Your task to perform on an android device: Search for Italian restaurants on Maps Image 0: 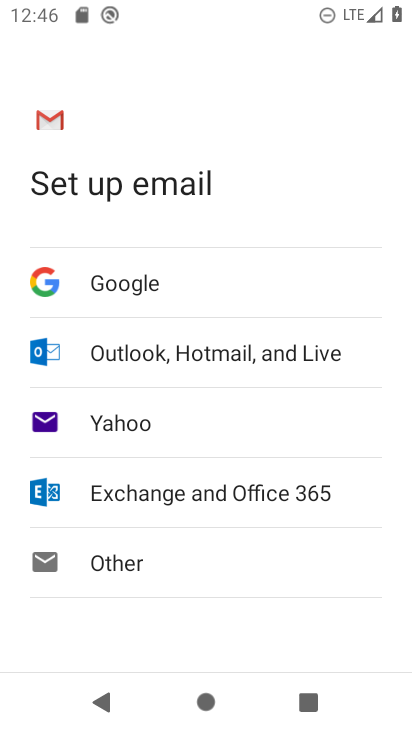
Step 0: press home button
Your task to perform on an android device: Search for Italian restaurants on Maps Image 1: 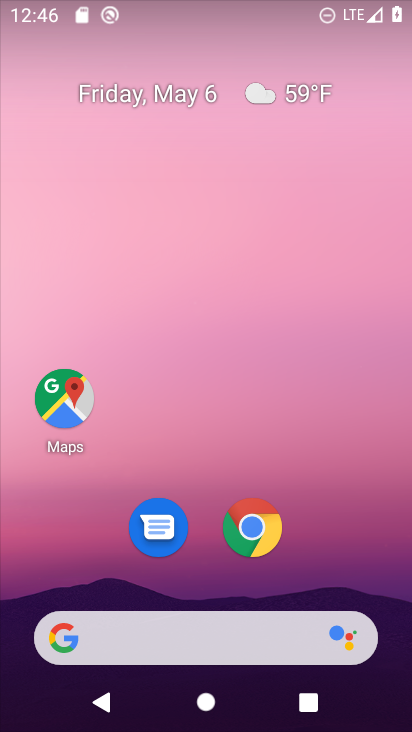
Step 1: click (67, 398)
Your task to perform on an android device: Search for Italian restaurants on Maps Image 2: 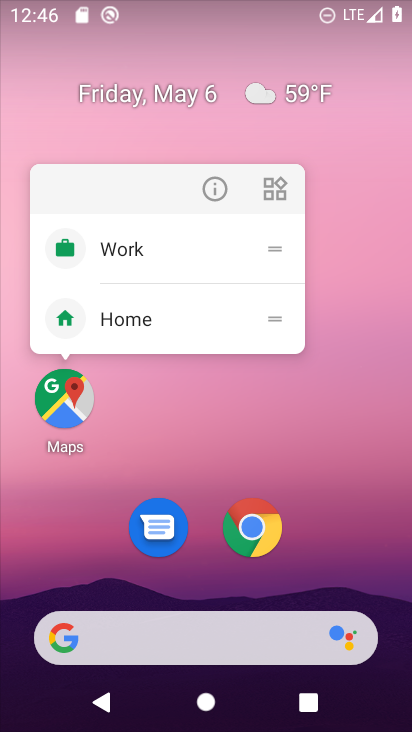
Step 2: click (67, 398)
Your task to perform on an android device: Search for Italian restaurants on Maps Image 3: 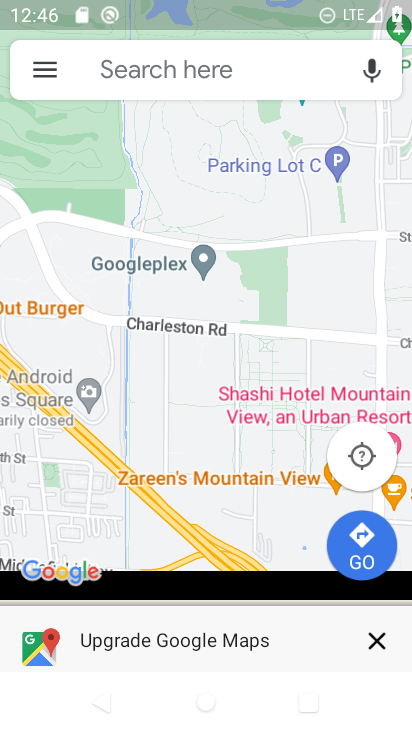
Step 3: click (142, 65)
Your task to perform on an android device: Search for Italian restaurants on Maps Image 4: 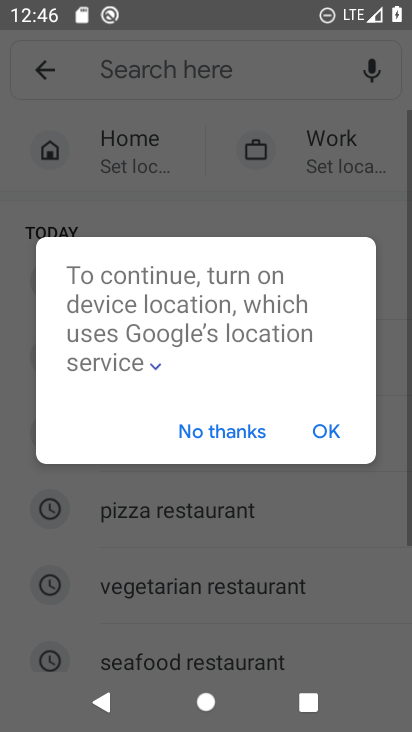
Step 4: click (212, 427)
Your task to perform on an android device: Search for Italian restaurants on Maps Image 5: 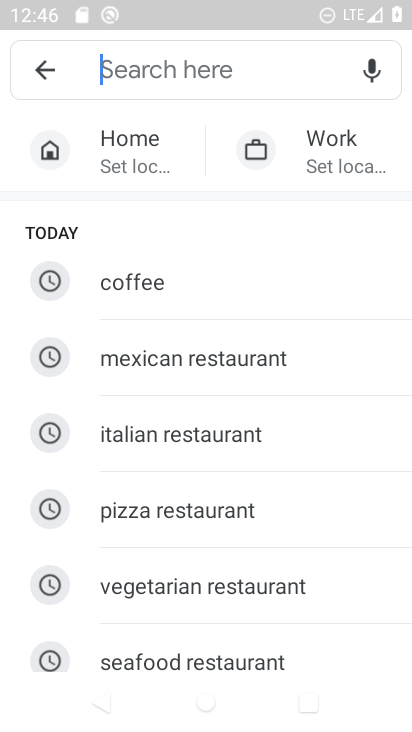
Step 5: click (172, 75)
Your task to perform on an android device: Search for Italian restaurants on Maps Image 6: 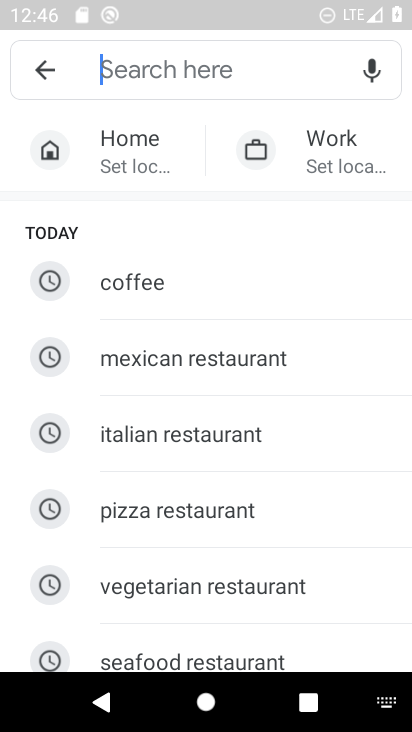
Step 6: type "Italian restaurants"
Your task to perform on an android device: Search for Italian restaurants on Maps Image 7: 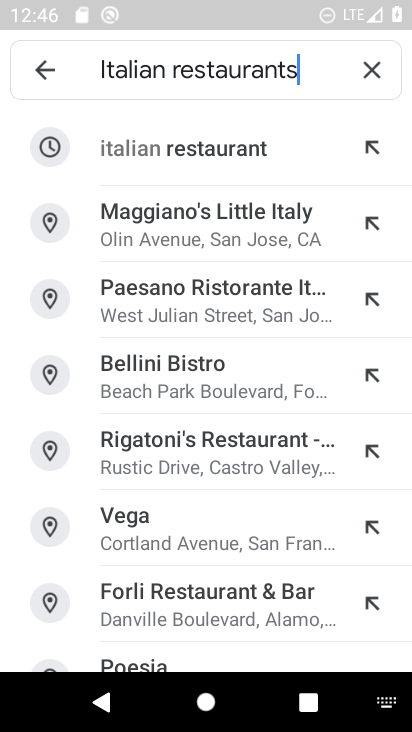
Step 7: click (209, 148)
Your task to perform on an android device: Search for Italian restaurants on Maps Image 8: 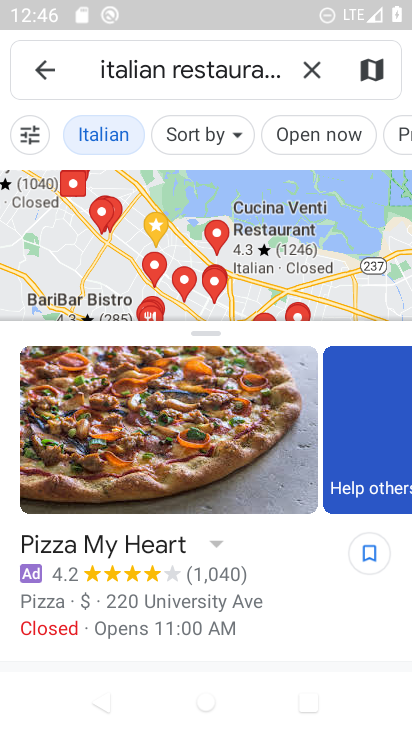
Step 8: task complete